Your task to perform on an android device: See recent photos Image 0: 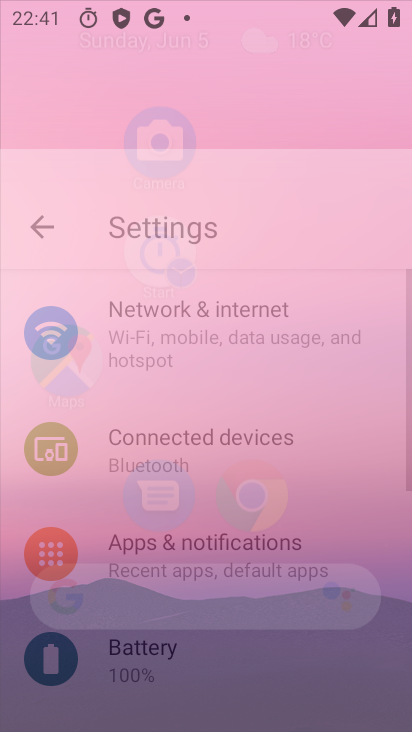
Step 0: drag from (182, 134) to (159, 50)
Your task to perform on an android device: See recent photos Image 1: 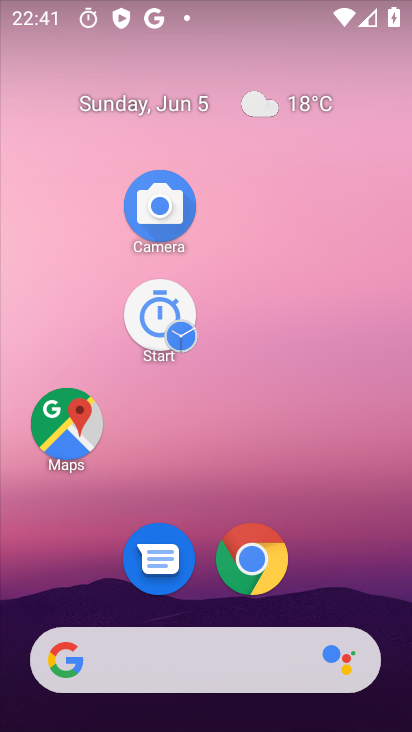
Step 1: drag from (214, 582) to (181, 107)
Your task to perform on an android device: See recent photos Image 2: 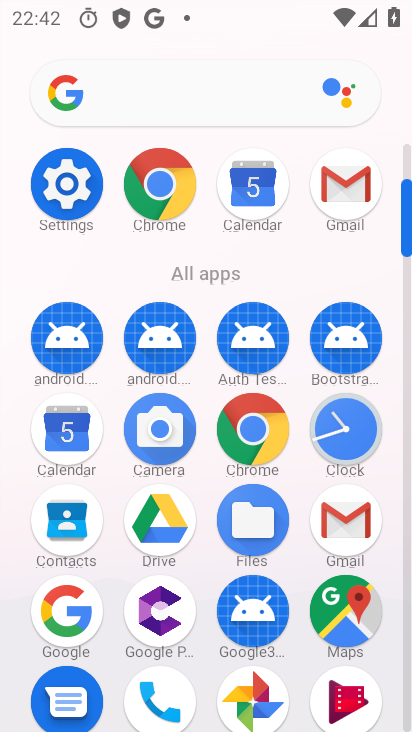
Step 2: click (259, 687)
Your task to perform on an android device: See recent photos Image 3: 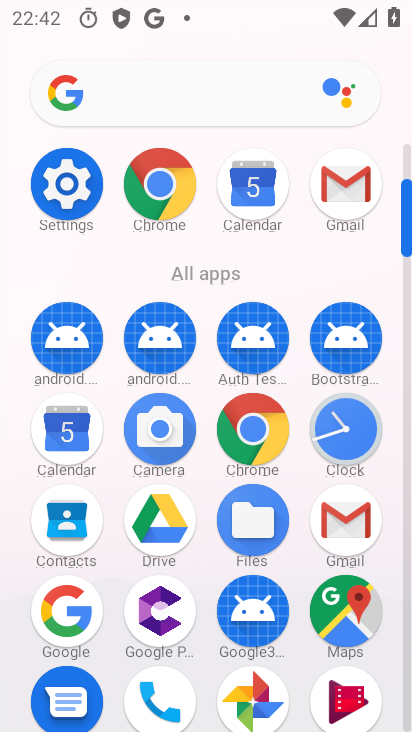
Step 3: click (245, 704)
Your task to perform on an android device: See recent photos Image 4: 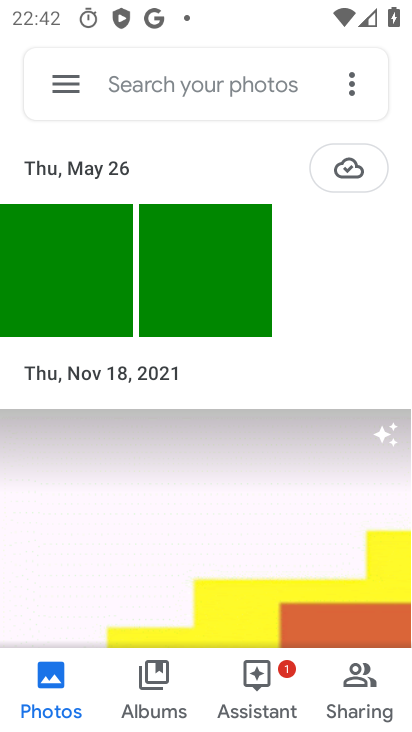
Step 4: task complete